Your task to perform on an android device: empty trash in the gmail app Image 0: 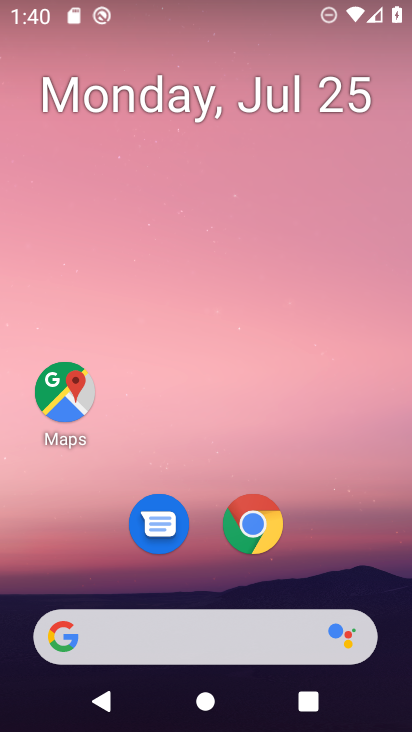
Step 0: drag from (229, 578) to (268, 119)
Your task to perform on an android device: empty trash in the gmail app Image 1: 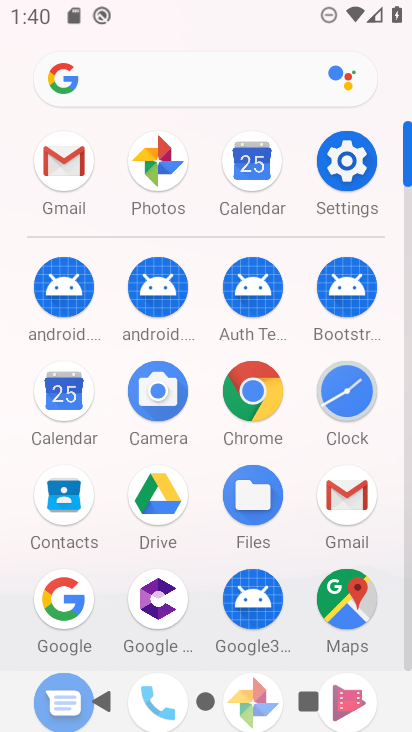
Step 1: click (66, 171)
Your task to perform on an android device: empty trash in the gmail app Image 2: 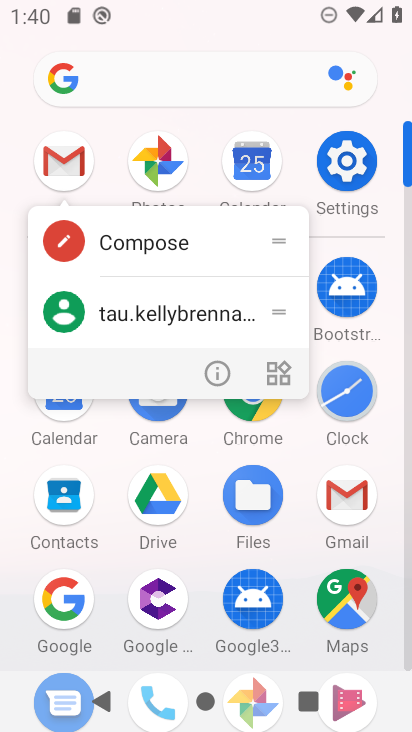
Step 2: click (66, 163)
Your task to perform on an android device: empty trash in the gmail app Image 3: 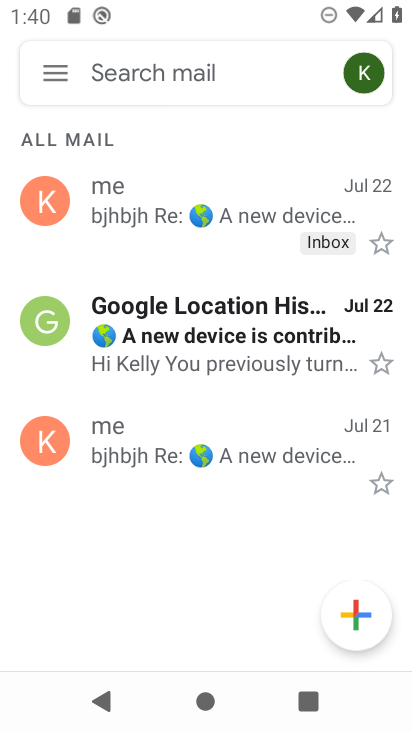
Step 3: click (67, 67)
Your task to perform on an android device: empty trash in the gmail app Image 4: 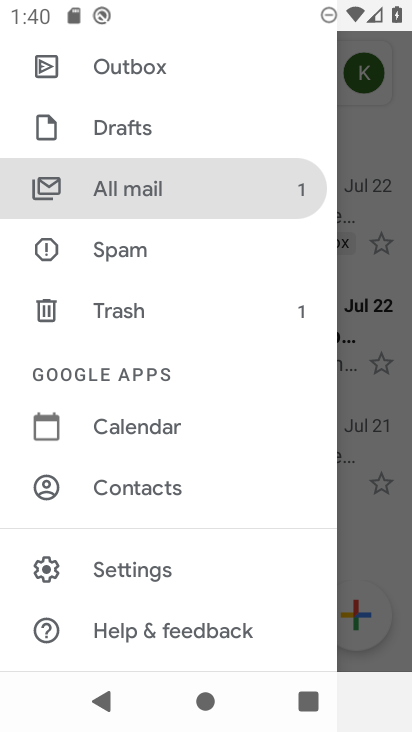
Step 4: click (144, 310)
Your task to perform on an android device: empty trash in the gmail app Image 5: 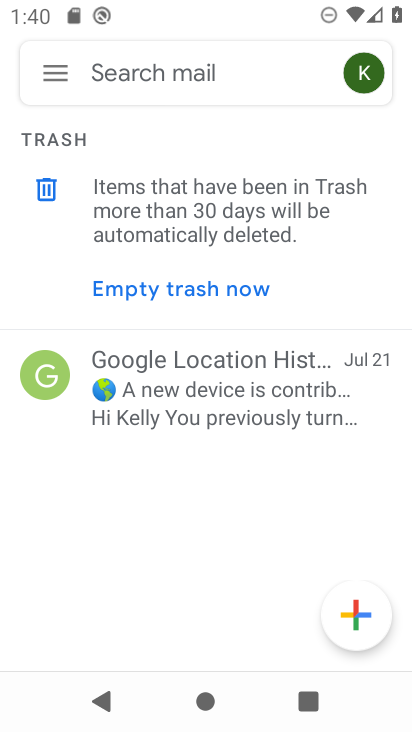
Step 5: click (221, 289)
Your task to perform on an android device: empty trash in the gmail app Image 6: 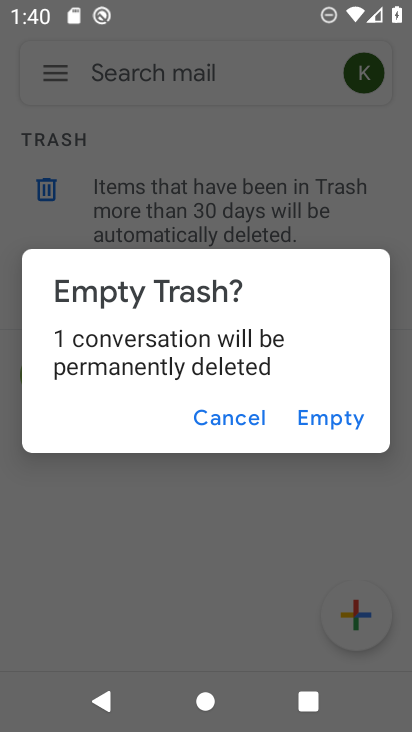
Step 6: click (324, 421)
Your task to perform on an android device: empty trash in the gmail app Image 7: 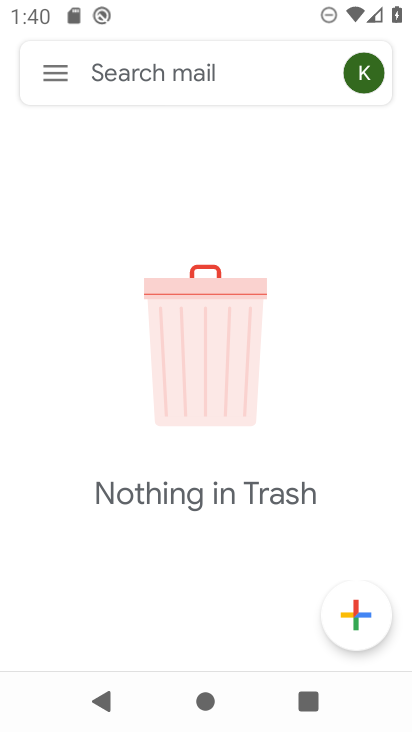
Step 7: task complete